Your task to perform on an android device: change the clock display to show seconds Image 0: 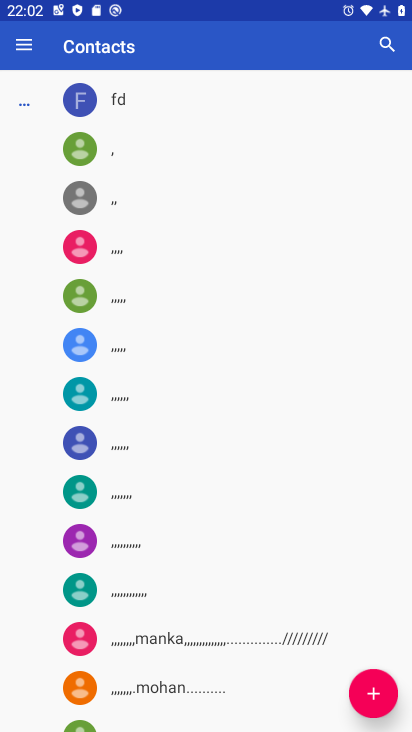
Step 0: press home button
Your task to perform on an android device: change the clock display to show seconds Image 1: 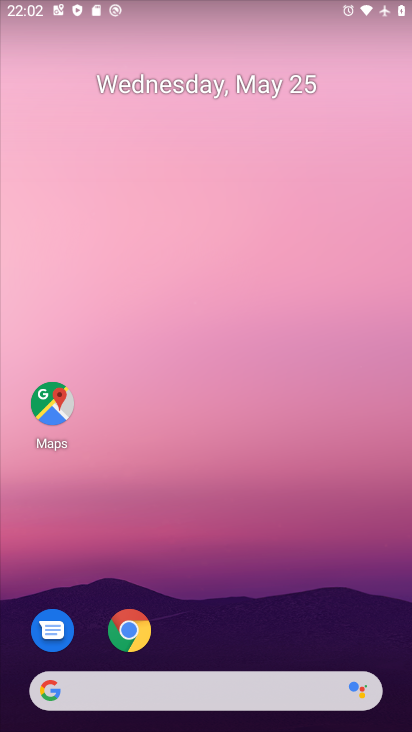
Step 1: drag from (201, 633) to (214, 181)
Your task to perform on an android device: change the clock display to show seconds Image 2: 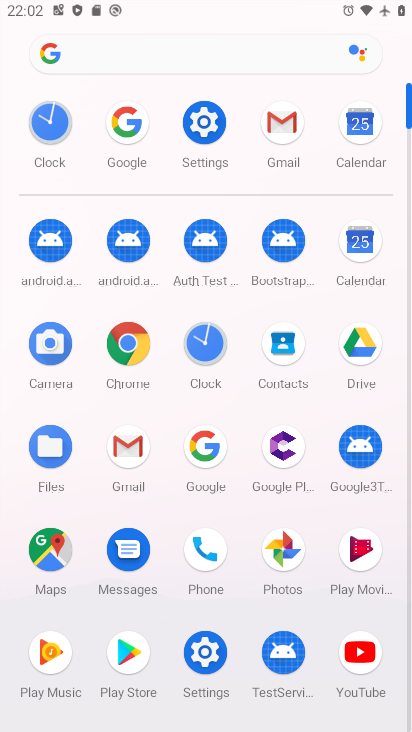
Step 2: click (214, 339)
Your task to perform on an android device: change the clock display to show seconds Image 3: 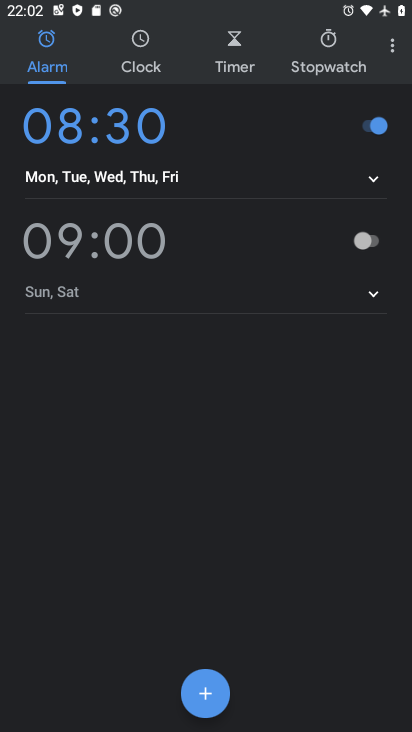
Step 3: click (392, 47)
Your task to perform on an android device: change the clock display to show seconds Image 4: 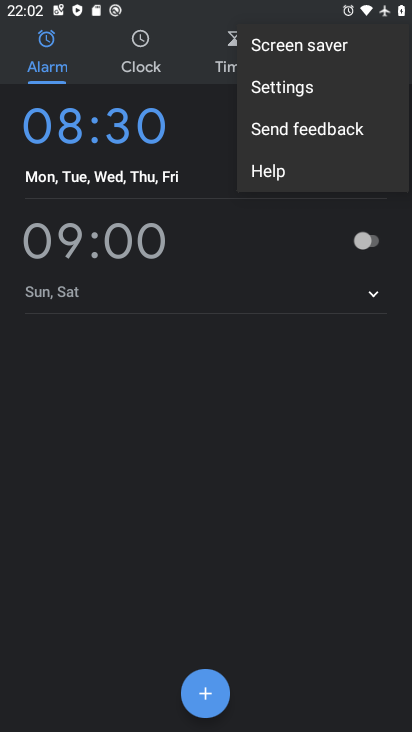
Step 4: click (296, 87)
Your task to perform on an android device: change the clock display to show seconds Image 5: 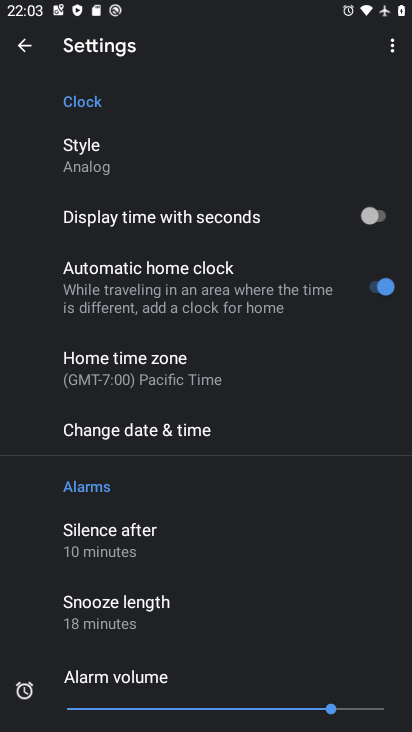
Step 5: click (371, 219)
Your task to perform on an android device: change the clock display to show seconds Image 6: 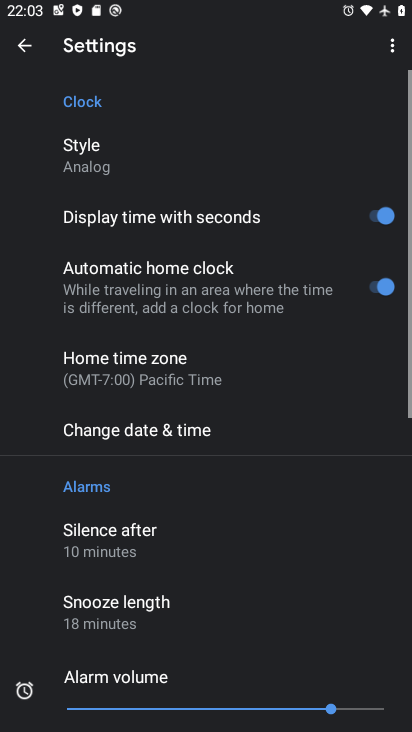
Step 6: task complete